Your task to perform on an android device: What's on my calendar tomorrow? Image 0: 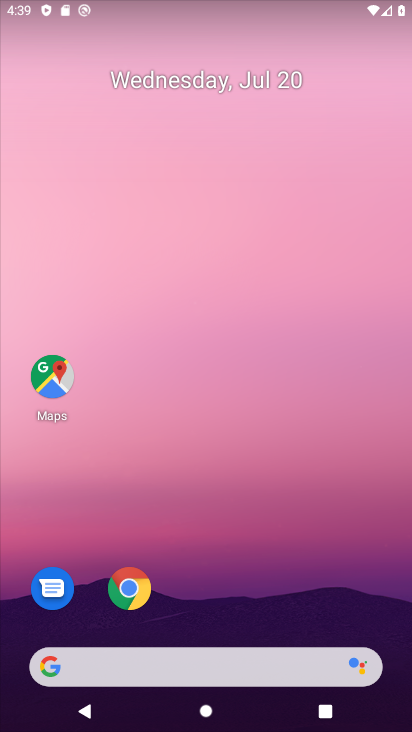
Step 0: drag from (342, 592) to (220, 103)
Your task to perform on an android device: What's on my calendar tomorrow? Image 1: 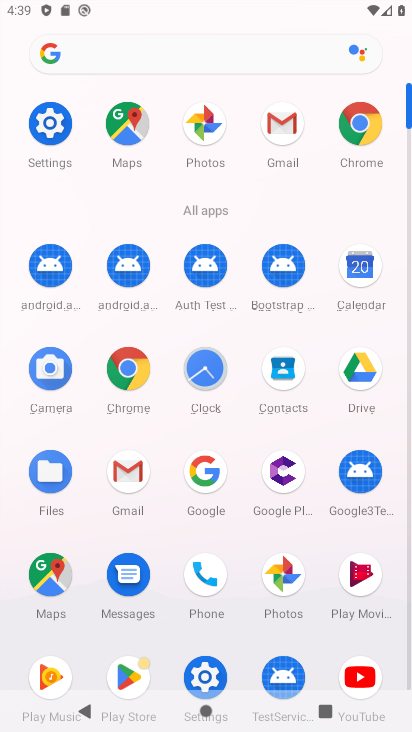
Step 1: click (356, 275)
Your task to perform on an android device: What's on my calendar tomorrow? Image 2: 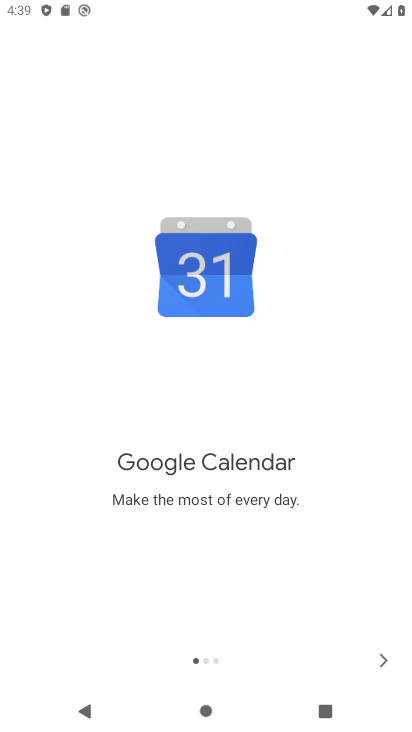
Step 2: click (382, 656)
Your task to perform on an android device: What's on my calendar tomorrow? Image 3: 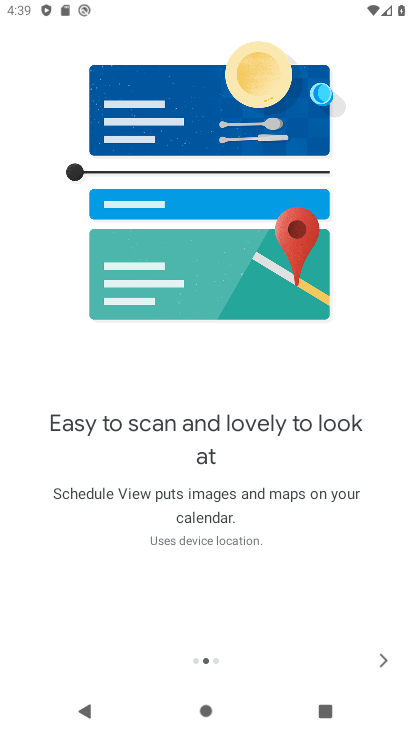
Step 3: click (383, 664)
Your task to perform on an android device: What's on my calendar tomorrow? Image 4: 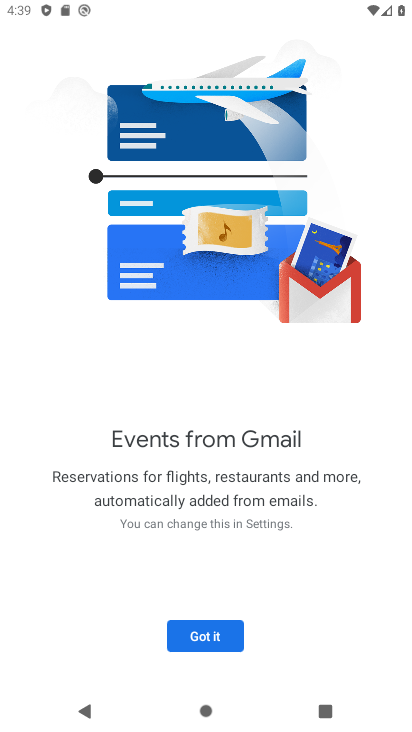
Step 4: click (224, 641)
Your task to perform on an android device: What's on my calendar tomorrow? Image 5: 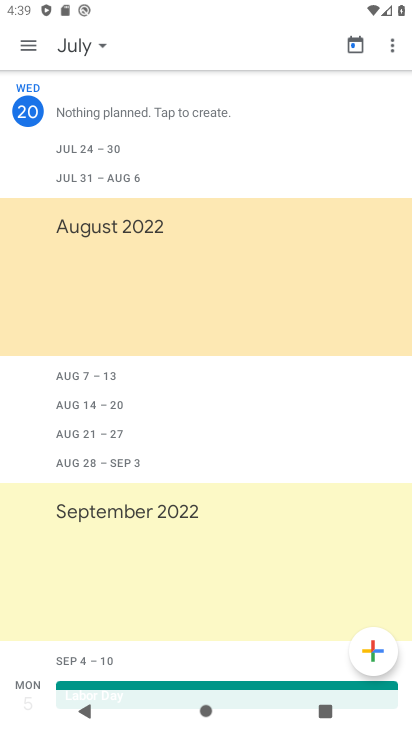
Step 5: click (30, 49)
Your task to perform on an android device: What's on my calendar tomorrow? Image 6: 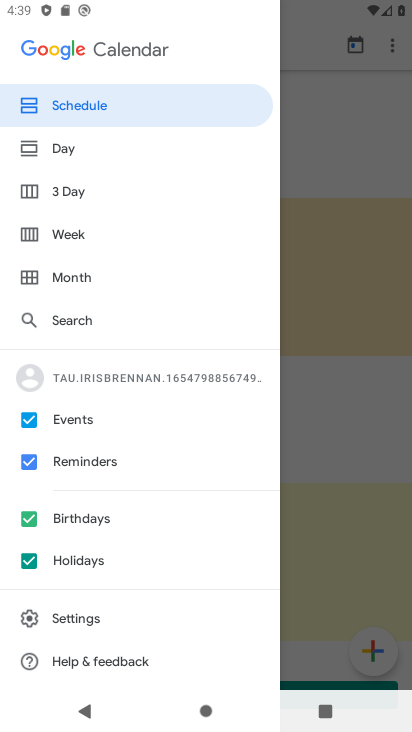
Step 6: click (101, 147)
Your task to perform on an android device: What's on my calendar tomorrow? Image 7: 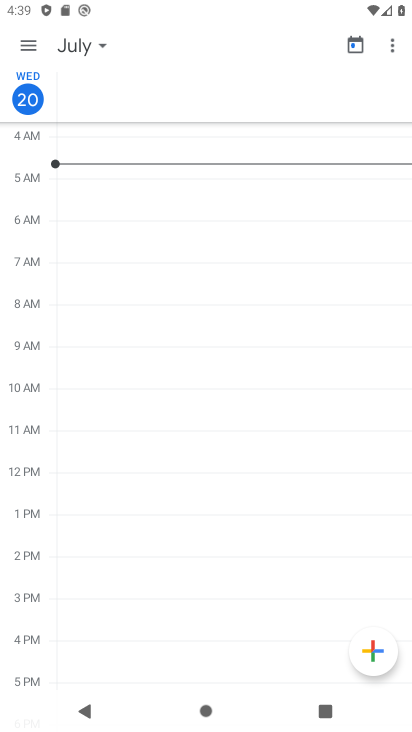
Step 7: task complete